Your task to perform on an android device: Open Maps and search for coffee Image 0: 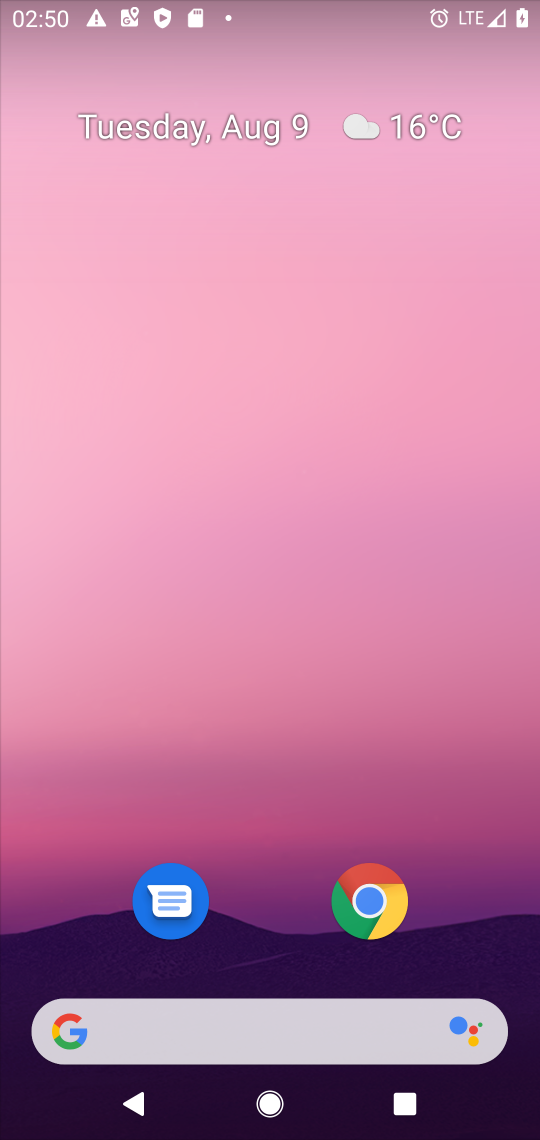
Step 0: drag from (495, 952) to (462, 169)
Your task to perform on an android device: Open Maps and search for coffee Image 1: 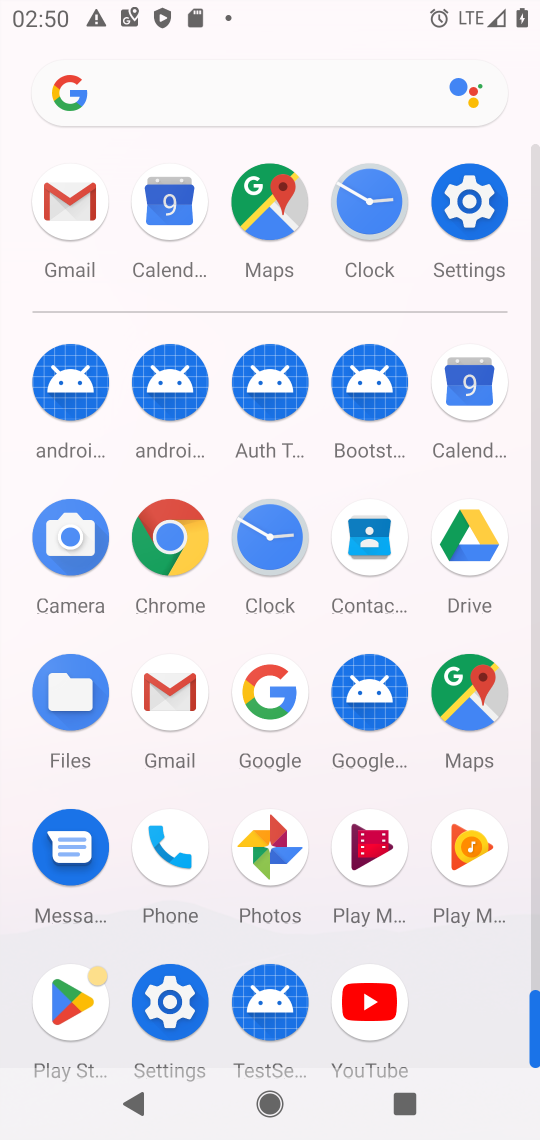
Step 1: click (464, 698)
Your task to perform on an android device: Open Maps and search for coffee Image 2: 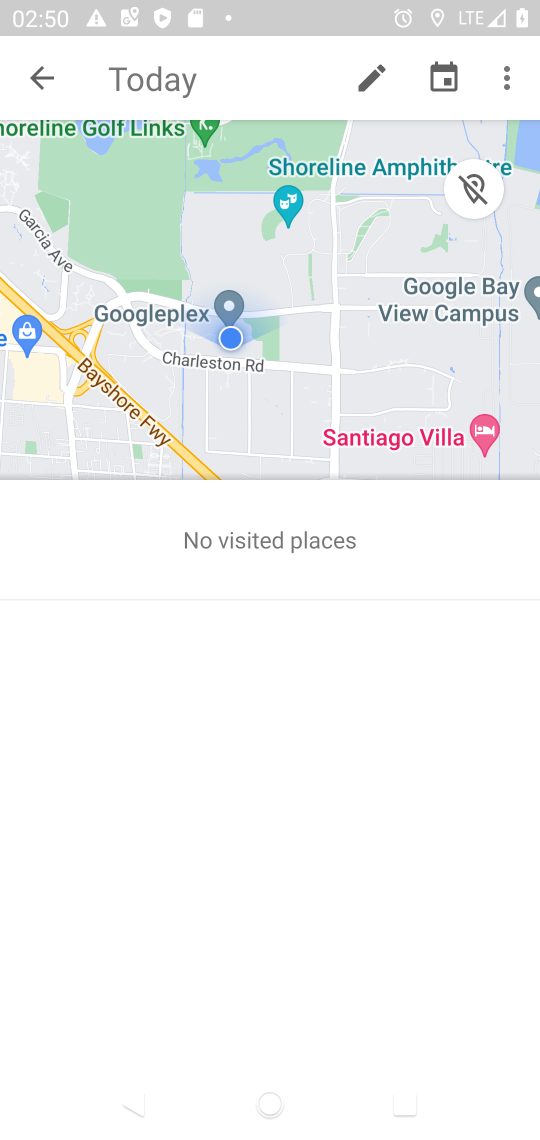
Step 2: press back button
Your task to perform on an android device: Open Maps and search for coffee Image 3: 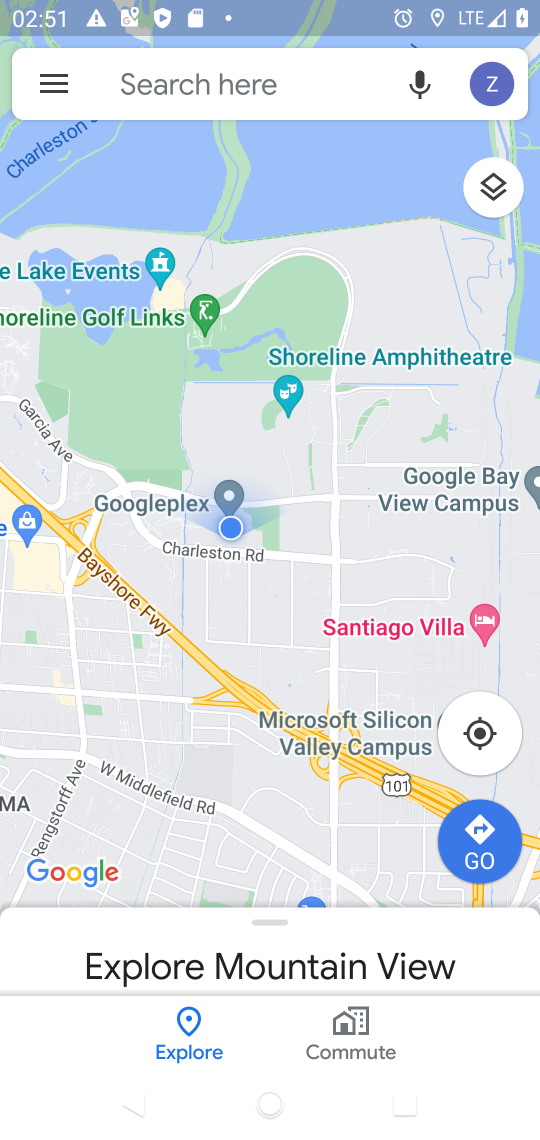
Step 3: click (194, 86)
Your task to perform on an android device: Open Maps and search for coffee Image 4: 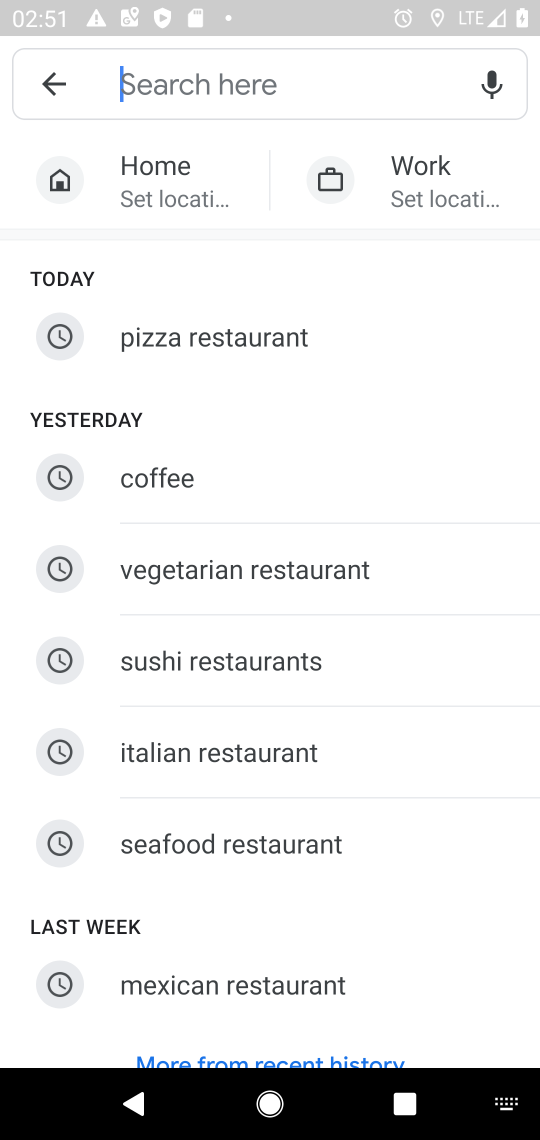
Step 4: type "coffee"
Your task to perform on an android device: Open Maps and search for coffee Image 5: 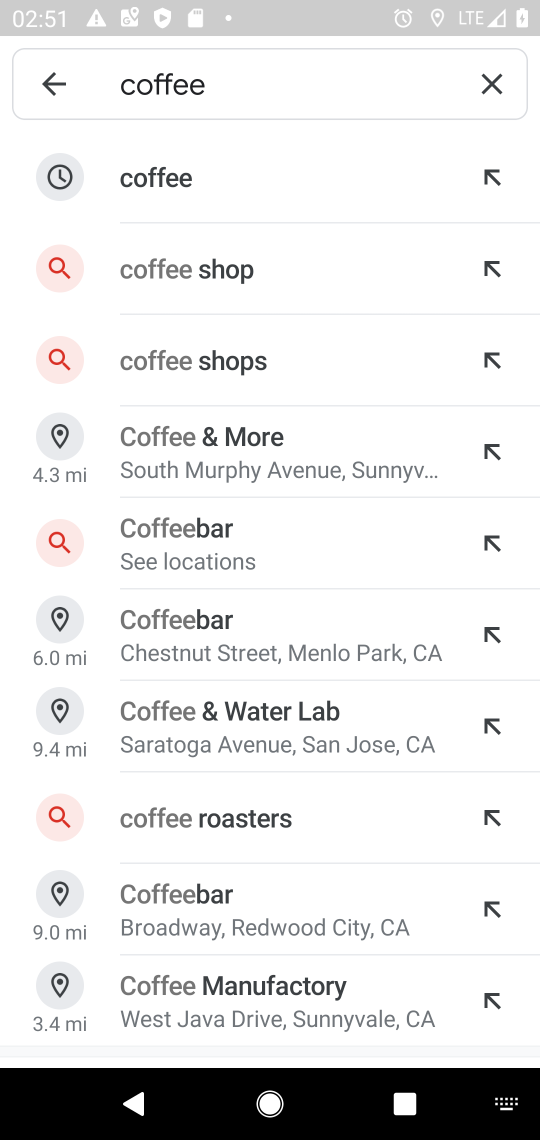
Step 5: click (192, 177)
Your task to perform on an android device: Open Maps and search for coffee Image 6: 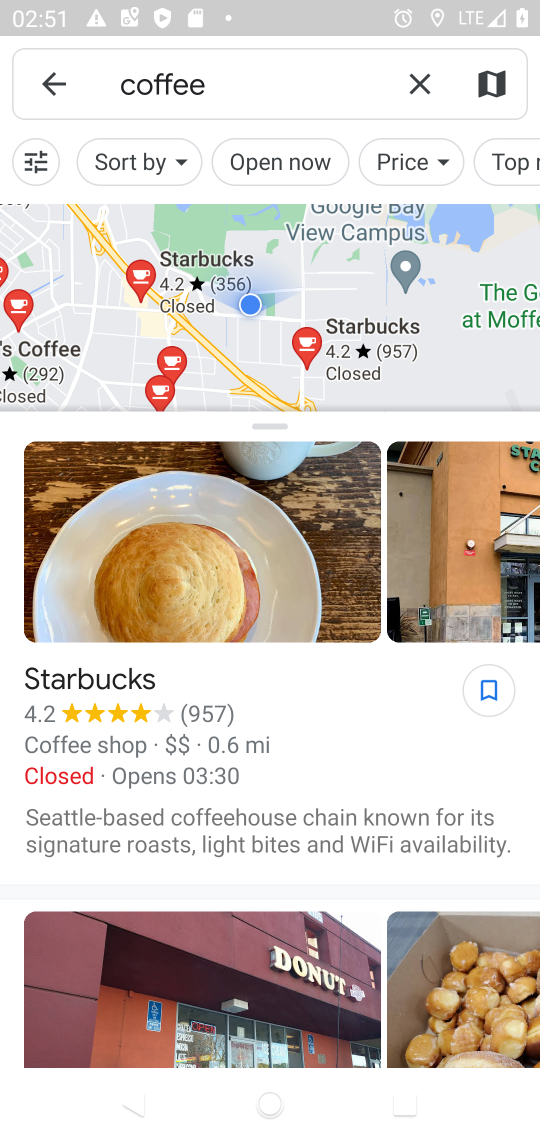
Step 6: task complete